Your task to perform on an android device: What's the weather today? Image 0: 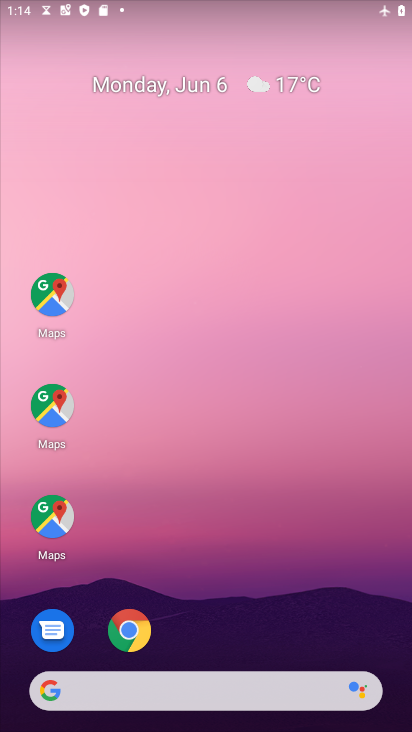
Step 0: drag from (278, 686) to (278, 261)
Your task to perform on an android device: What's the weather today? Image 1: 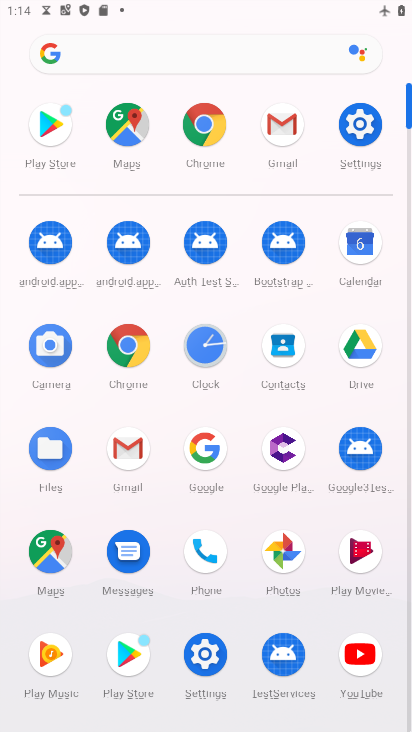
Step 1: press back button
Your task to perform on an android device: What's the weather today? Image 2: 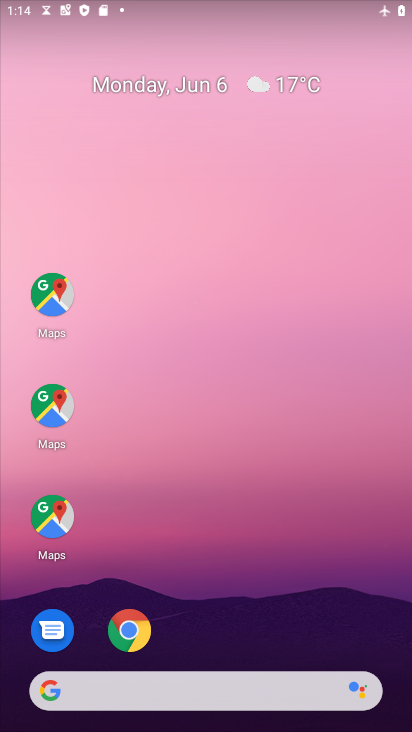
Step 2: drag from (407, 690) to (387, 469)
Your task to perform on an android device: What's the weather today? Image 3: 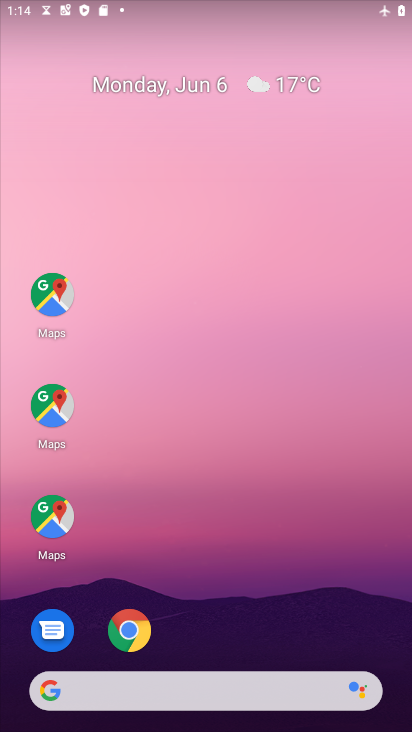
Step 3: drag from (38, 191) to (280, 190)
Your task to perform on an android device: What's the weather today? Image 4: 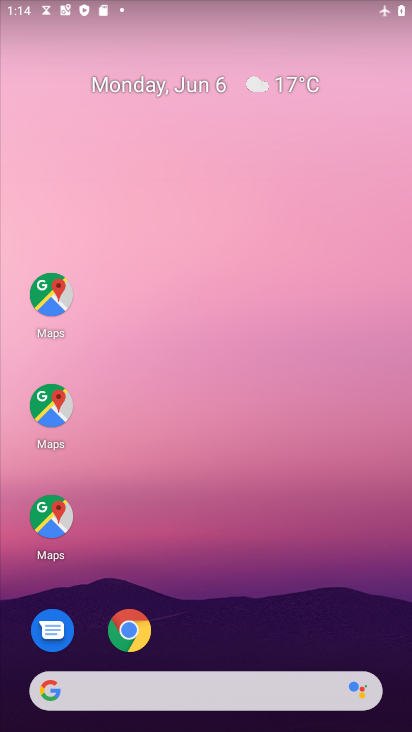
Step 4: drag from (130, 388) to (388, 574)
Your task to perform on an android device: What's the weather today? Image 5: 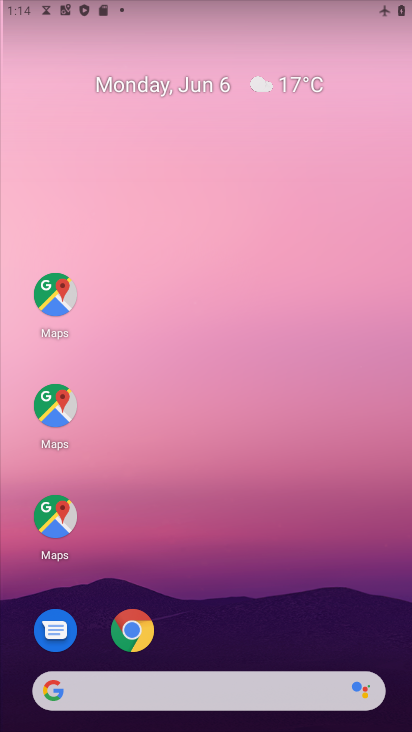
Step 5: drag from (57, 330) to (335, 461)
Your task to perform on an android device: What's the weather today? Image 6: 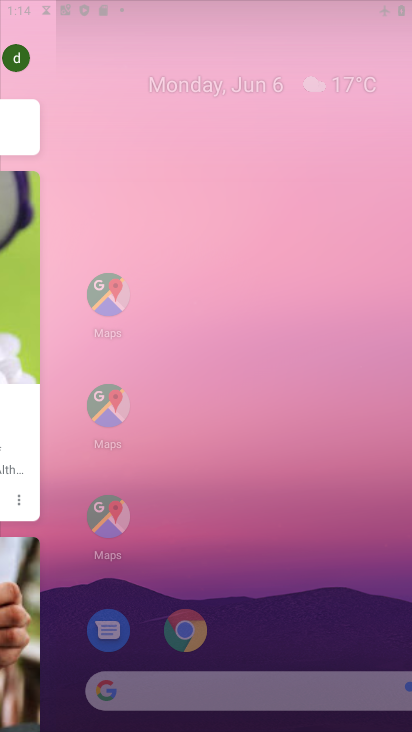
Step 6: drag from (38, 153) to (385, 266)
Your task to perform on an android device: What's the weather today? Image 7: 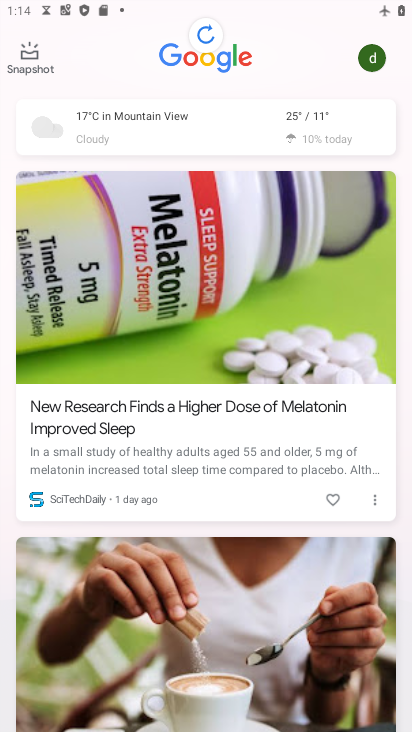
Step 7: drag from (148, 139) to (402, 183)
Your task to perform on an android device: What's the weather today? Image 8: 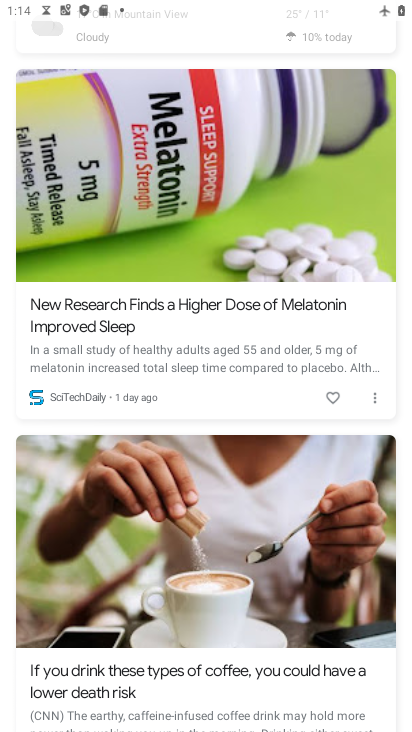
Step 8: drag from (238, 68) to (340, 179)
Your task to perform on an android device: What's the weather today? Image 9: 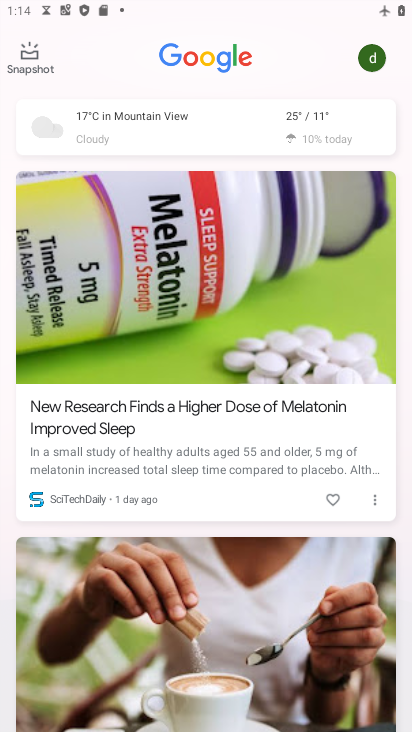
Step 9: click (195, 108)
Your task to perform on an android device: What's the weather today? Image 10: 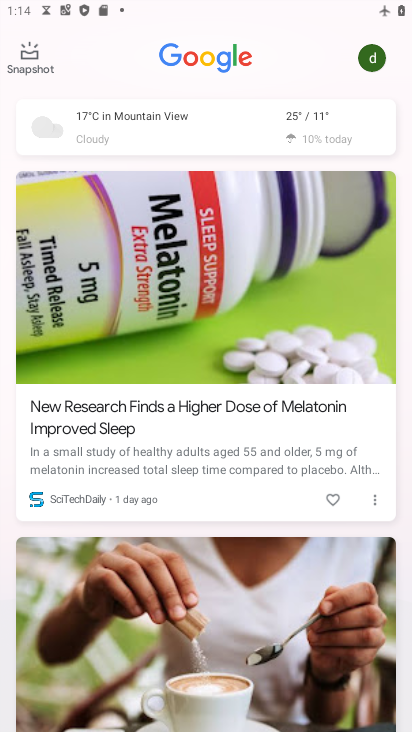
Step 10: click (196, 114)
Your task to perform on an android device: What's the weather today? Image 11: 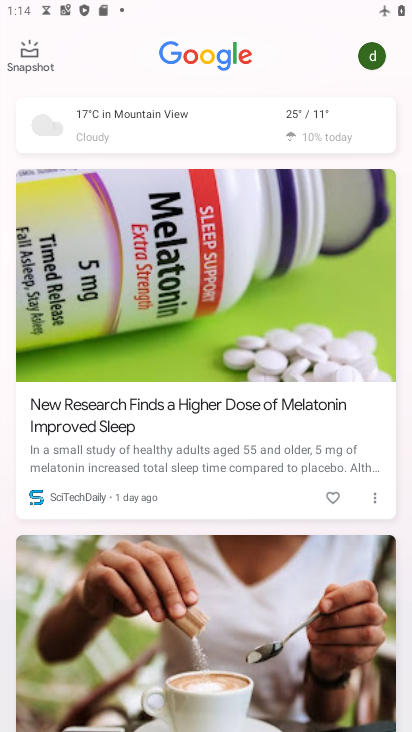
Step 11: click (201, 104)
Your task to perform on an android device: What's the weather today? Image 12: 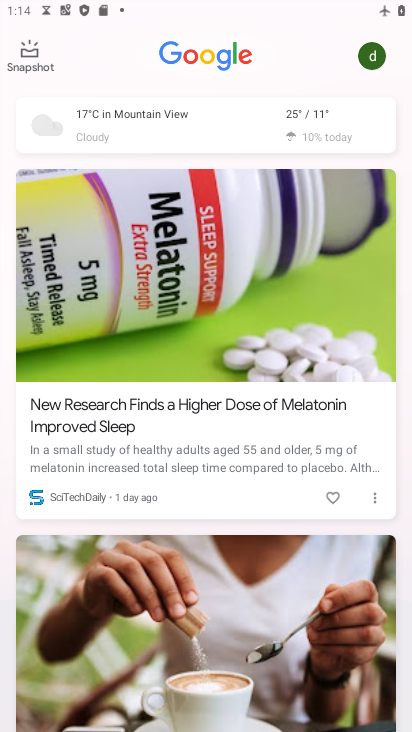
Step 12: click (205, 101)
Your task to perform on an android device: What's the weather today? Image 13: 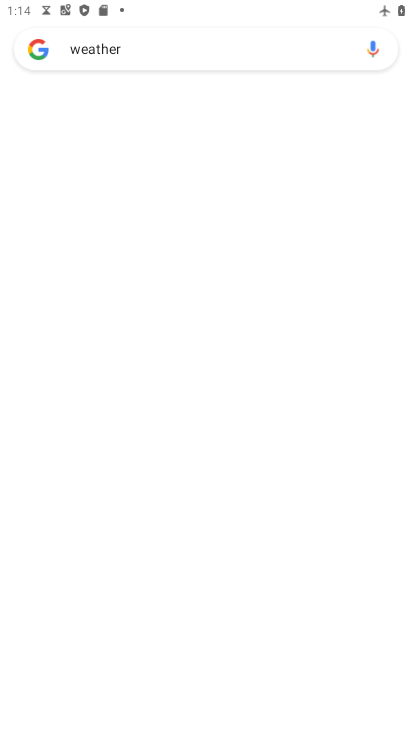
Step 13: click (206, 100)
Your task to perform on an android device: What's the weather today? Image 14: 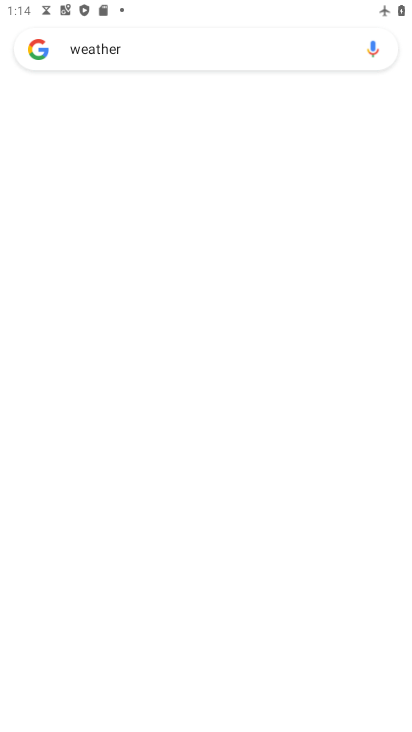
Step 14: click (206, 100)
Your task to perform on an android device: What's the weather today? Image 15: 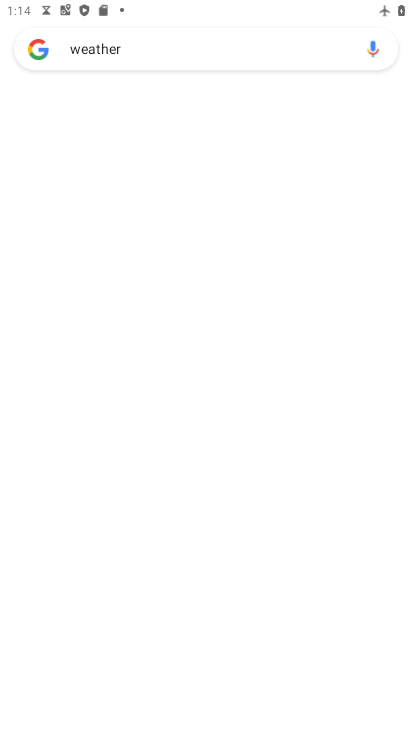
Step 15: click (206, 100)
Your task to perform on an android device: What's the weather today? Image 16: 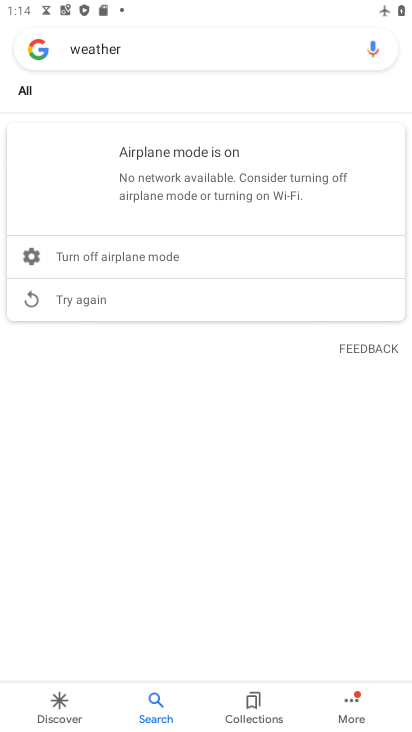
Step 16: task complete